Your task to perform on an android device: add a contact Image 0: 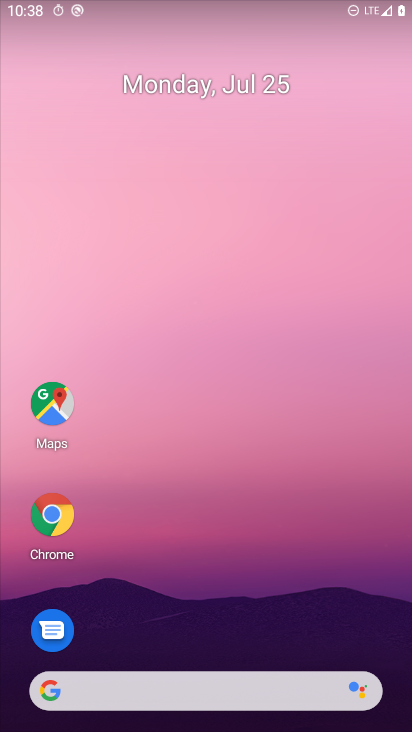
Step 0: drag from (30, 695) to (312, 177)
Your task to perform on an android device: add a contact Image 1: 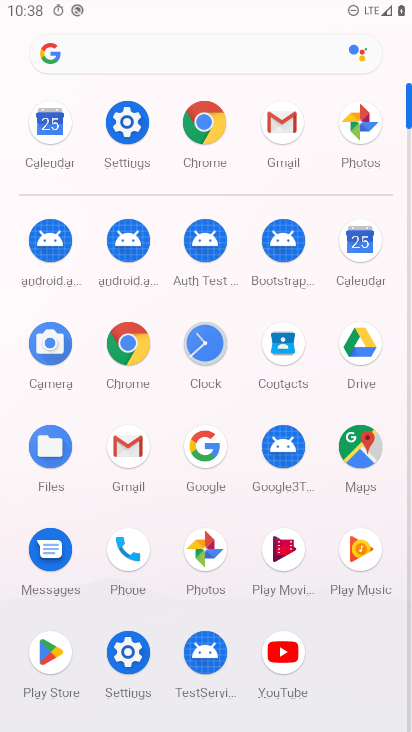
Step 1: click (140, 558)
Your task to perform on an android device: add a contact Image 2: 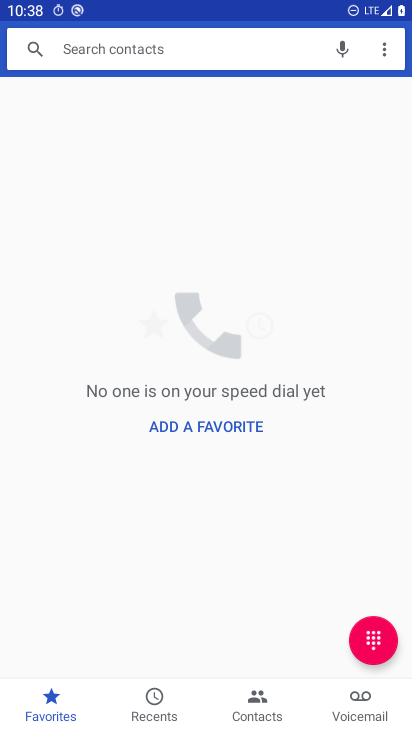
Step 2: click (260, 700)
Your task to perform on an android device: add a contact Image 3: 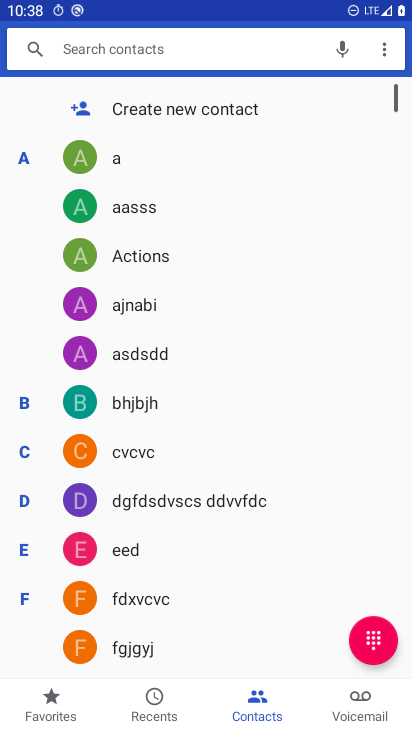
Step 3: click (156, 115)
Your task to perform on an android device: add a contact Image 4: 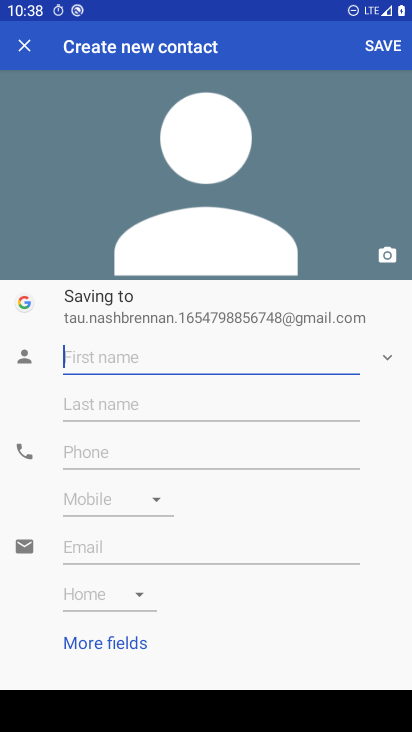
Step 4: type "shfbjgn"
Your task to perform on an android device: add a contact Image 5: 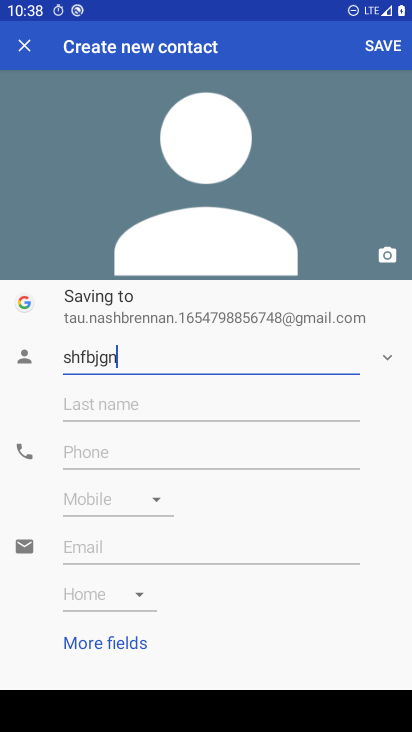
Step 5: type ""
Your task to perform on an android device: add a contact Image 6: 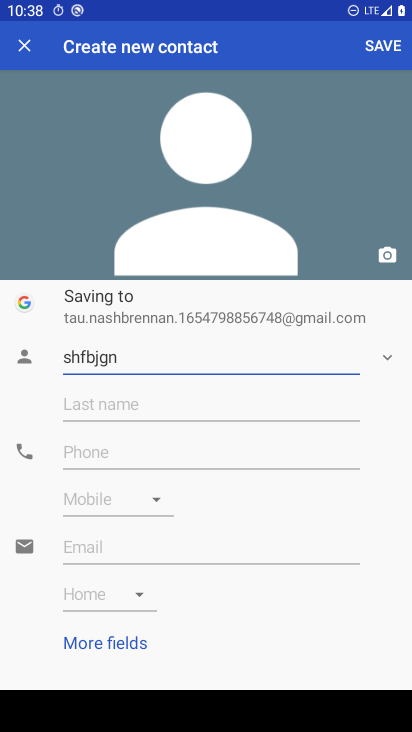
Step 6: click (370, 40)
Your task to perform on an android device: add a contact Image 7: 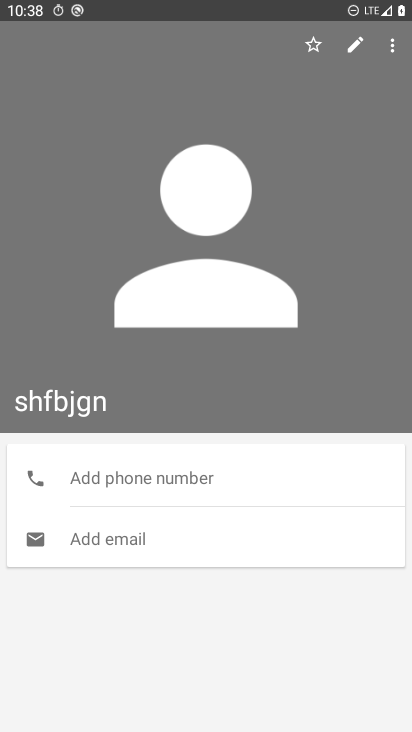
Step 7: task complete